Your task to perform on an android device: find which apps use the phone's location Image 0: 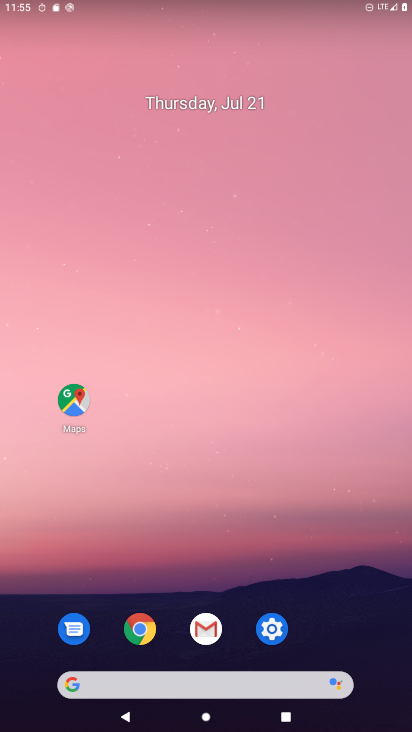
Step 0: press home button
Your task to perform on an android device: find which apps use the phone's location Image 1: 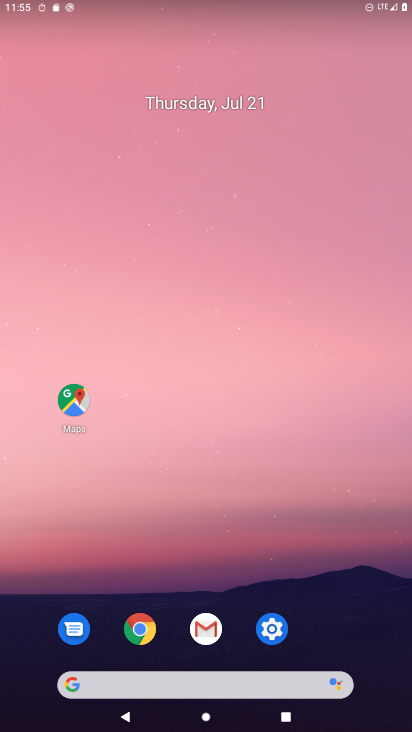
Step 1: drag from (228, 687) to (137, 148)
Your task to perform on an android device: find which apps use the phone's location Image 2: 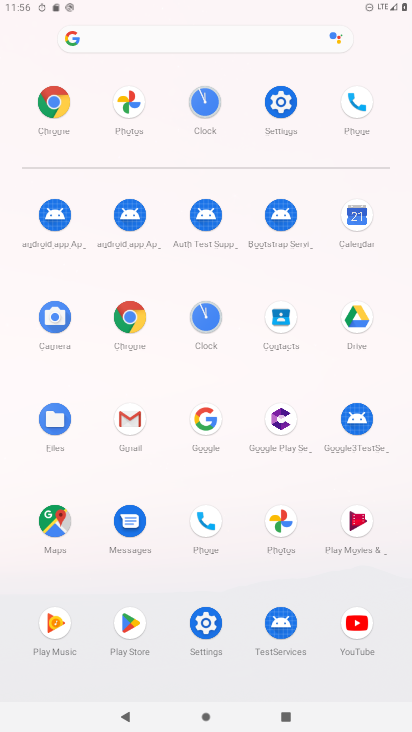
Step 2: click (199, 528)
Your task to perform on an android device: find which apps use the phone's location Image 3: 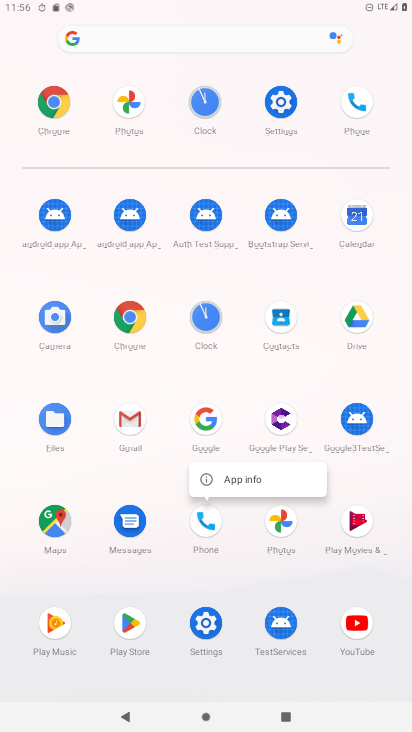
Step 3: click (206, 522)
Your task to perform on an android device: find which apps use the phone's location Image 4: 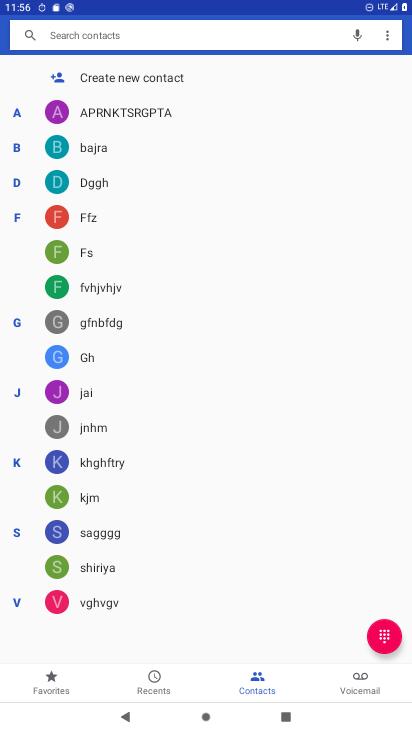
Step 4: press home button
Your task to perform on an android device: find which apps use the phone's location Image 5: 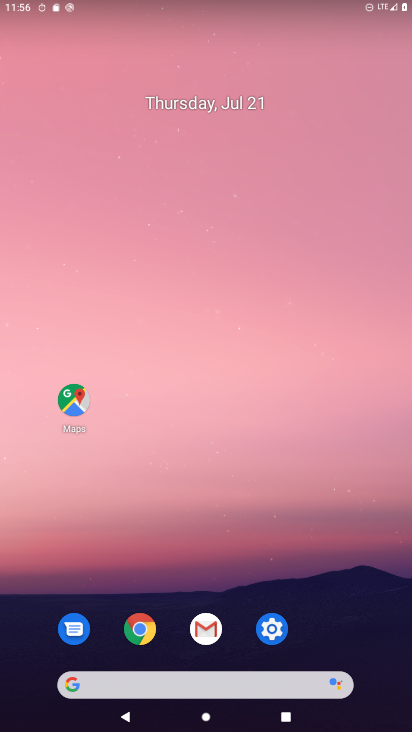
Step 5: click (273, 615)
Your task to perform on an android device: find which apps use the phone's location Image 6: 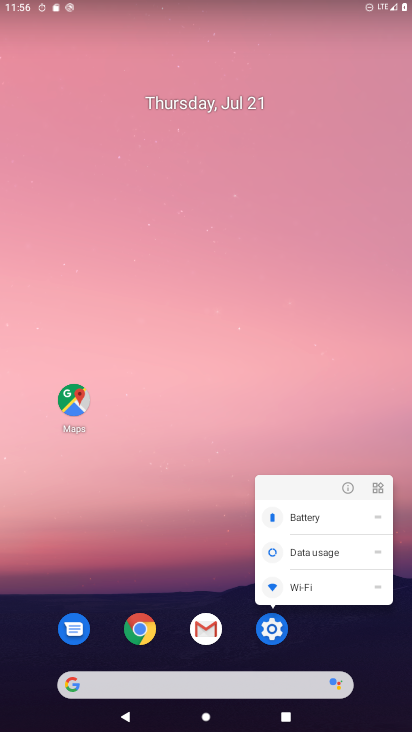
Step 6: click (261, 633)
Your task to perform on an android device: find which apps use the phone's location Image 7: 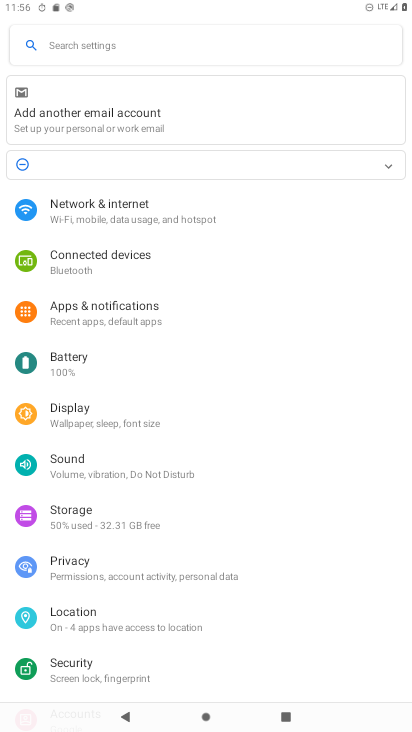
Step 7: click (70, 607)
Your task to perform on an android device: find which apps use the phone's location Image 8: 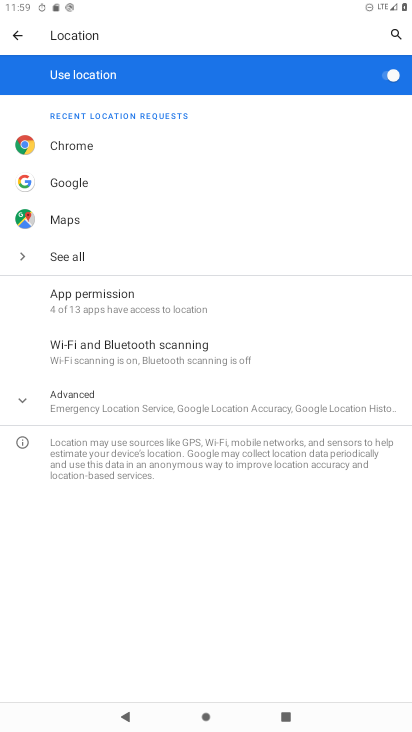
Step 8: task complete